Your task to perform on an android device: refresh tabs in the chrome app Image 0: 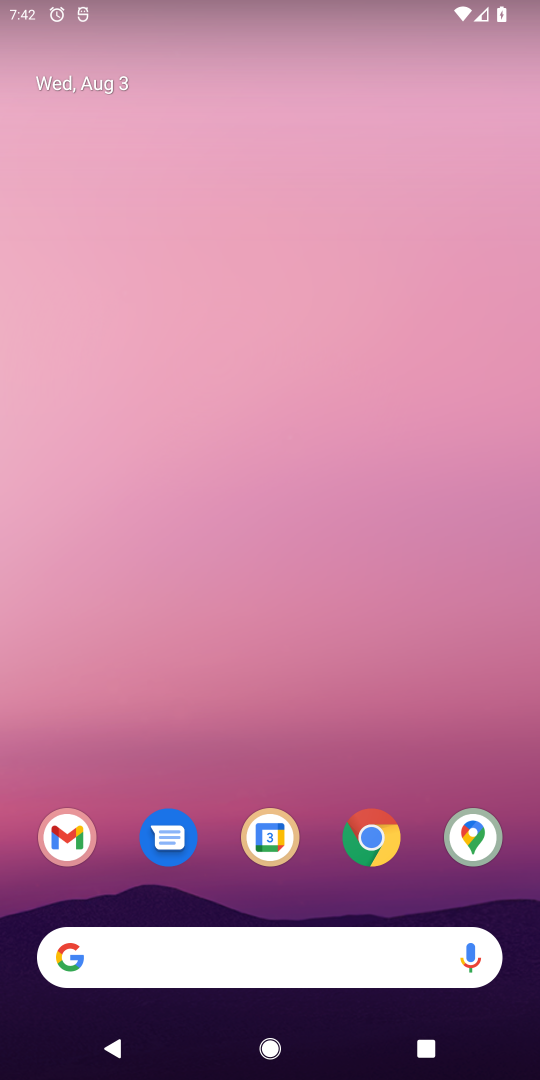
Step 0: press home button
Your task to perform on an android device: refresh tabs in the chrome app Image 1: 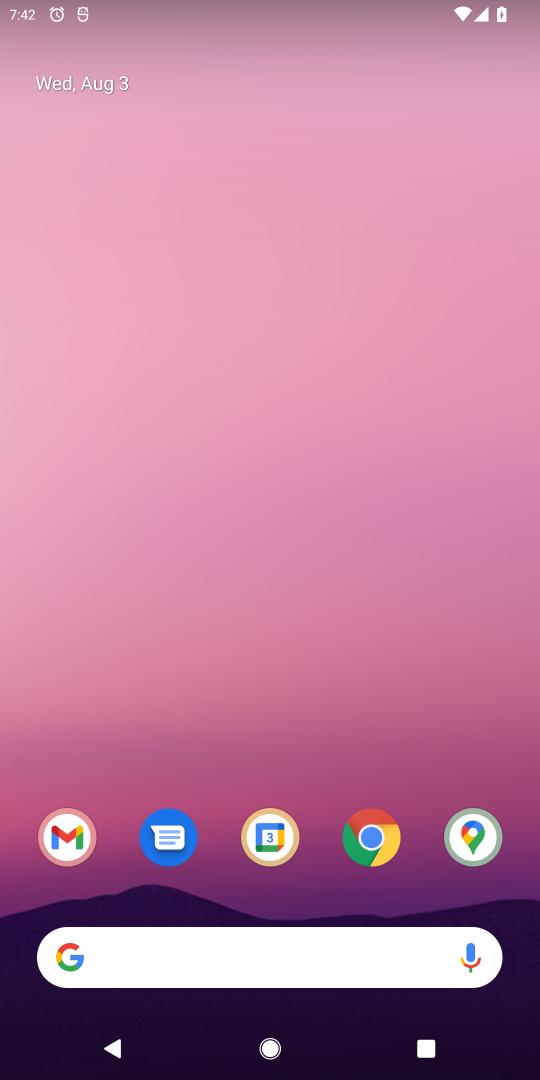
Step 1: click (374, 839)
Your task to perform on an android device: refresh tabs in the chrome app Image 2: 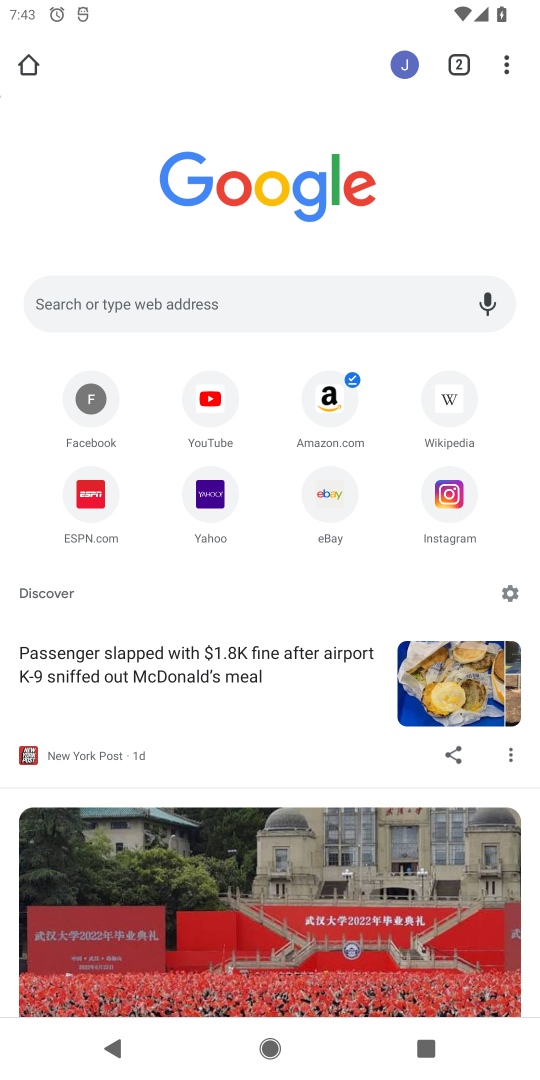
Step 2: click (505, 63)
Your task to perform on an android device: refresh tabs in the chrome app Image 3: 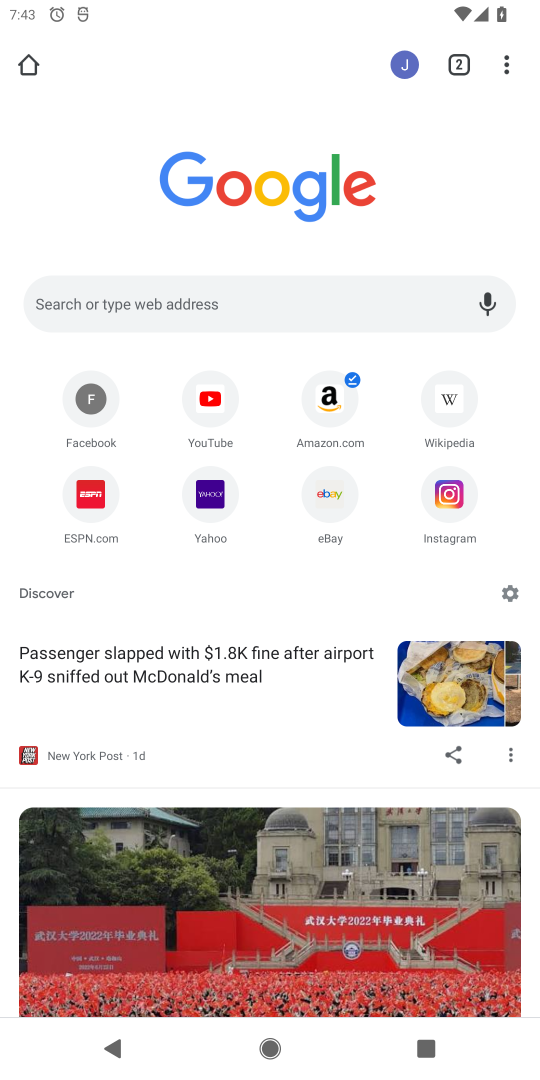
Step 3: task complete